Your task to perform on an android device: change your default location settings in chrome Image 0: 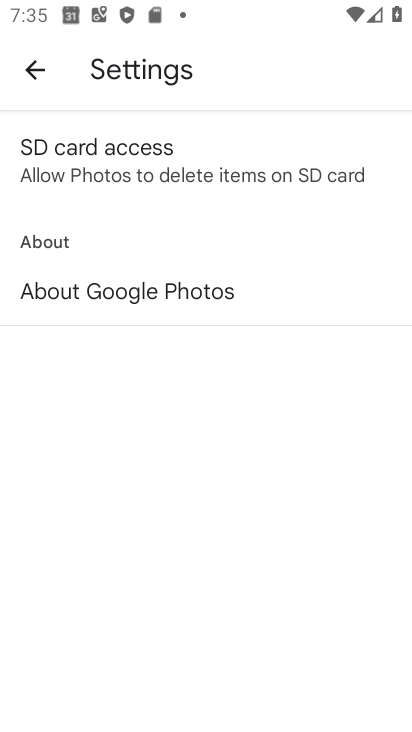
Step 0: press home button
Your task to perform on an android device: change your default location settings in chrome Image 1: 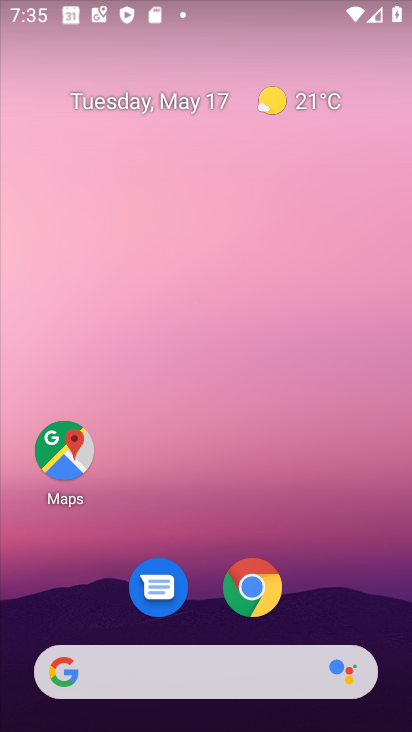
Step 1: drag from (345, 578) to (354, 132)
Your task to perform on an android device: change your default location settings in chrome Image 2: 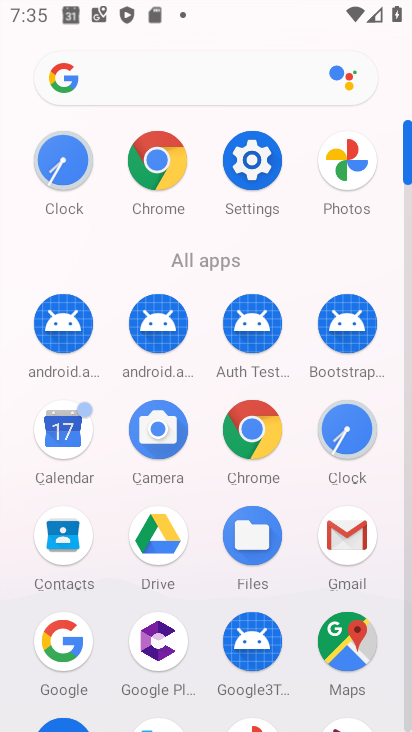
Step 2: click (274, 438)
Your task to perform on an android device: change your default location settings in chrome Image 3: 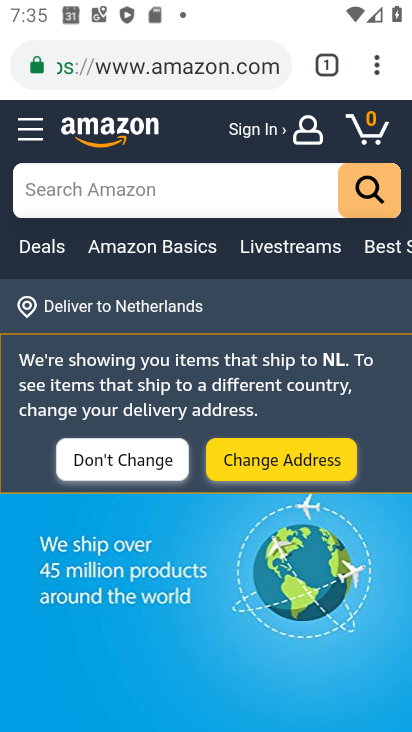
Step 3: click (380, 66)
Your task to perform on an android device: change your default location settings in chrome Image 4: 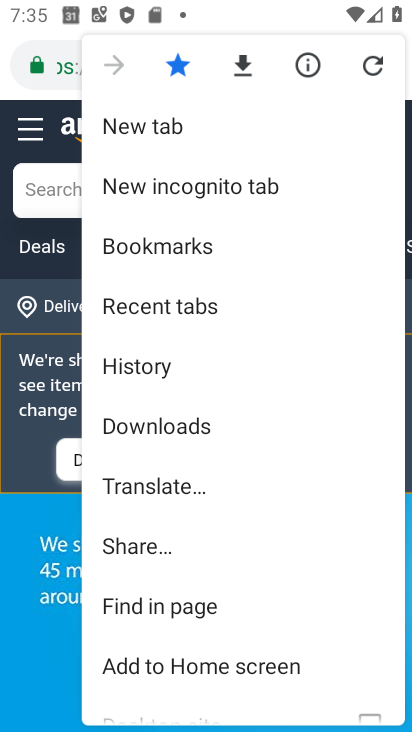
Step 4: drag from (322, 536) to (354, 397)
Your task to perform on an android device: change your default location settings in chrome Image 5: 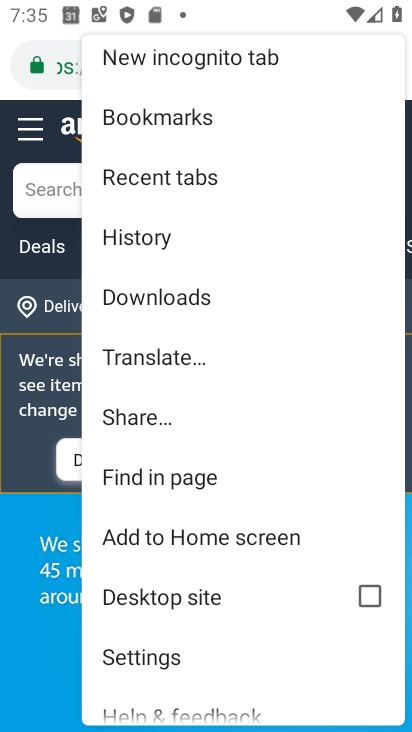
Step 5: drag from (296, 632) to (331, 420)
Your task to perform on an android device: change your default location settings in chrome Image 6: 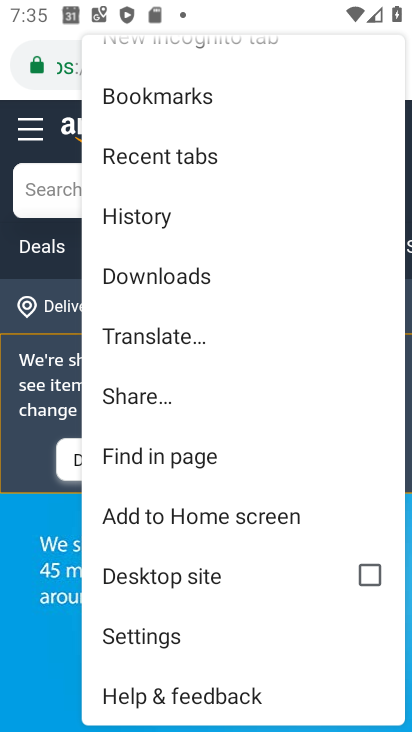
Step 6: click (209, 637)
Your task to perform on an android device: change your default location settings in chrome Image 7: 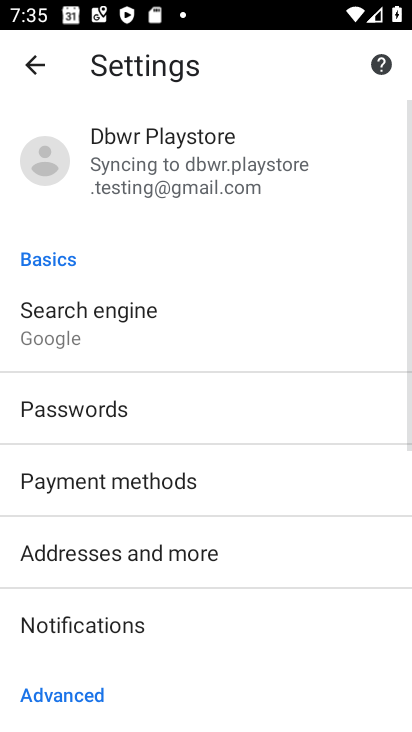
Step 7: drag from (278, 632) to (284, 512)
Your task to perform on an android device: change your default location settings in chrome Image 8: 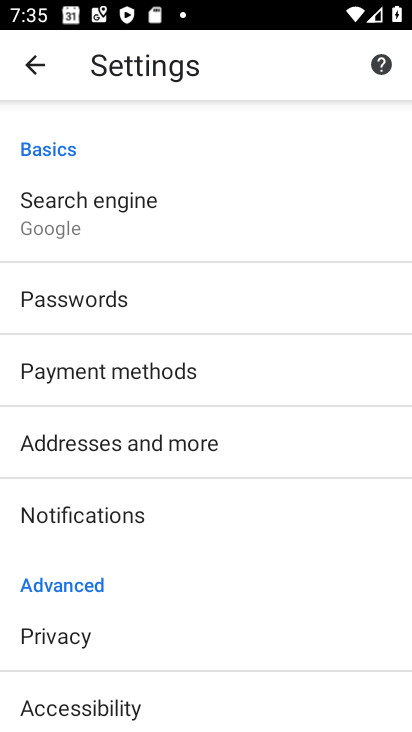
Step 8: drag from (305, 649) to (315, 501)
Your task to perform on an android device: change your default location settings in chrome Image 9: 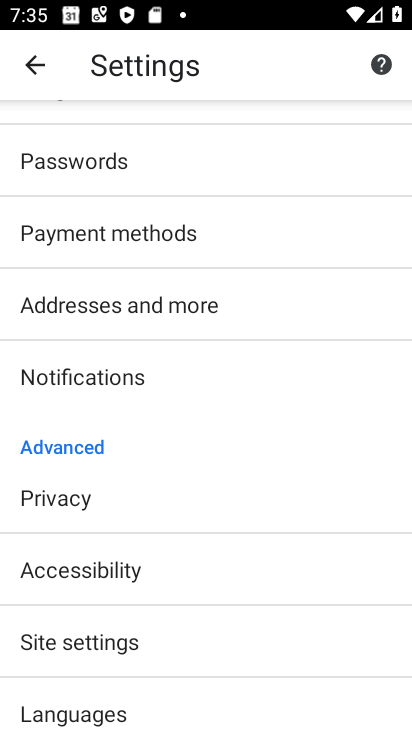
Step 9: drag from (321, 665) to (340, 508)
Your task to perform on an android device: change your default location settings in chrome Image 10: 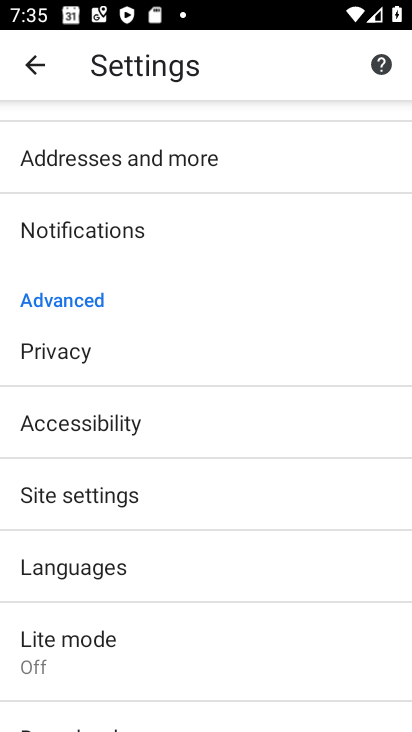
Step 10: drag from (310, 649) to (333, 522)
Your task to perform on an android device: change your default location settings in chrome Image 11: 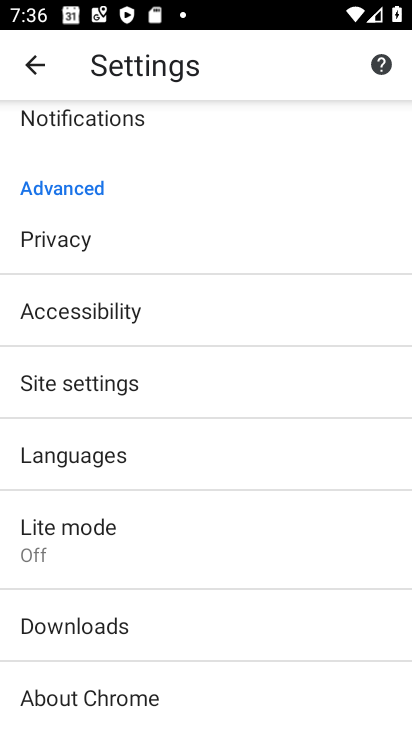
Step 11: drag from (320, 703) to (346, 554)
Your task to perform on an android device: change your default location settings in chrome Image 12: 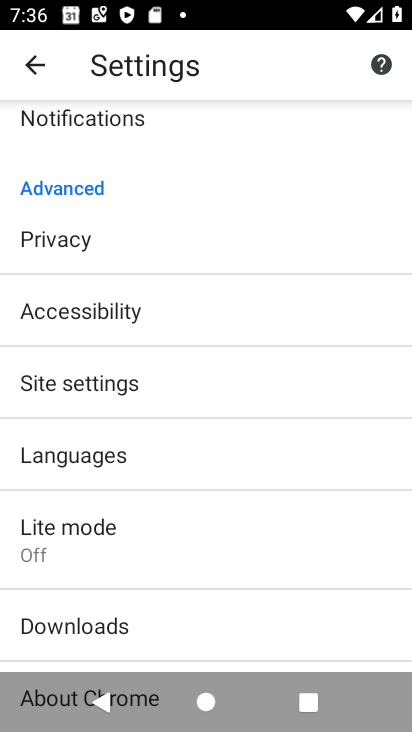
Step 12: drag from (346, 359) to (347, 449)
Your task to perform on an android device: change your default location settings in chrome Image 13: 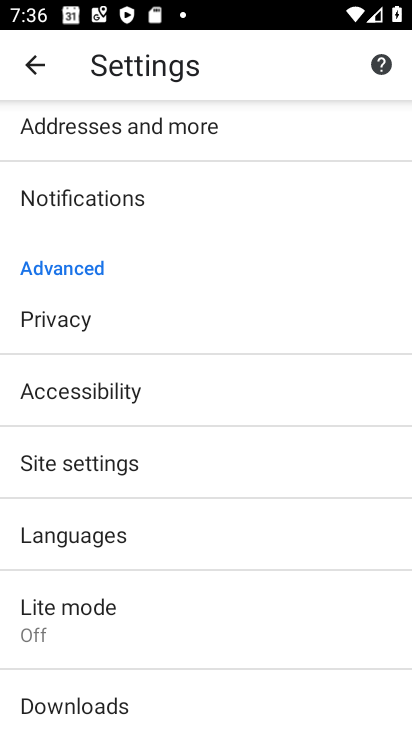
Step 13: drag from (350, 259) to (341, 412)
Your task to perform on an android device: change your default location settings in chrome Image 14: 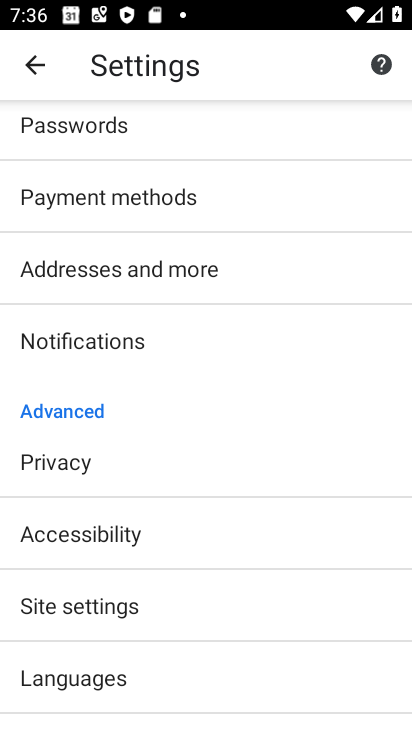
Step 14: click (268, 600)
Your task to perform on an android device: change your default location settings in chrome Image 15: 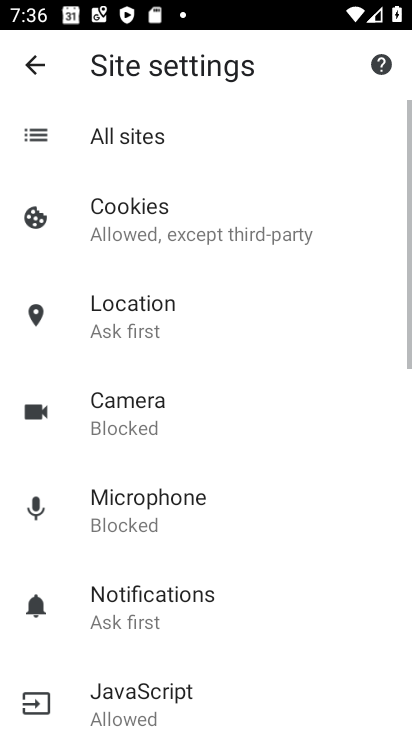
Step 15: drag from (282, 638) to (290, 483)
Your task to perform on an android device: change your default location settings in chrome Image 16: 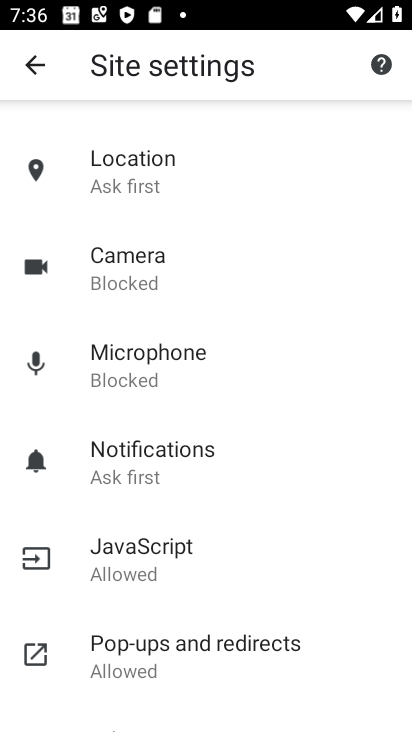
Step 16: drag from (317, 673) to (339, 508)
Your task to perform on an android device: change your default location settings in chrome Image 17: 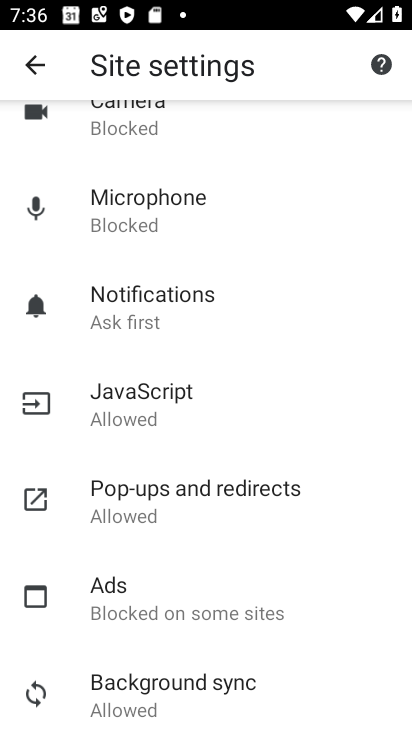
Step 17: drag from (342, 683) to (344, 527)
Your task to perform on an android device: change your default location settings in chrome Image 18: 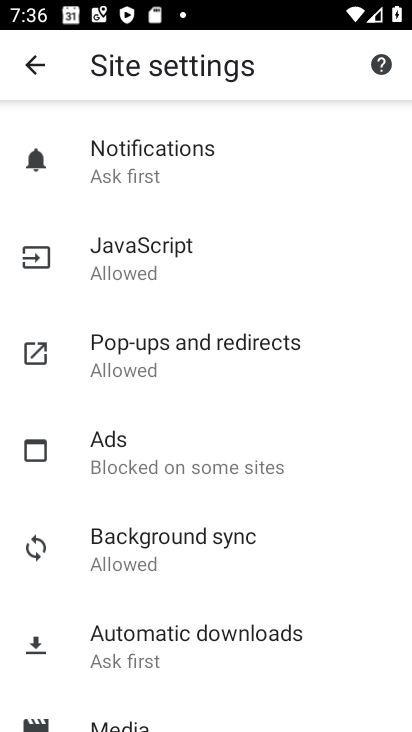
Step 18: drag from (344, 697) to (337, 552)
Your task to perform on an android device: change your default location settings in chrome Image 19: 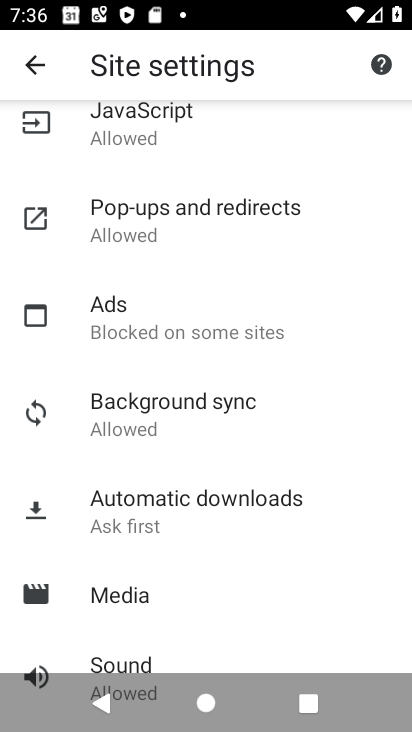
Step 19: drag from (349, 629) to (348, 512)
Your task to perform on an android device: change your default location settings in chrome Image 20: 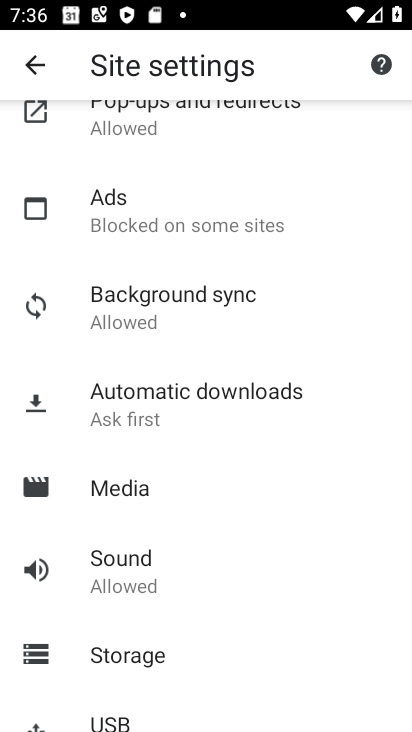
Step 20: drag from (318, 680) to (316, 534)
Your task to perform on an android device: change your default location settings in chrome Image 21: 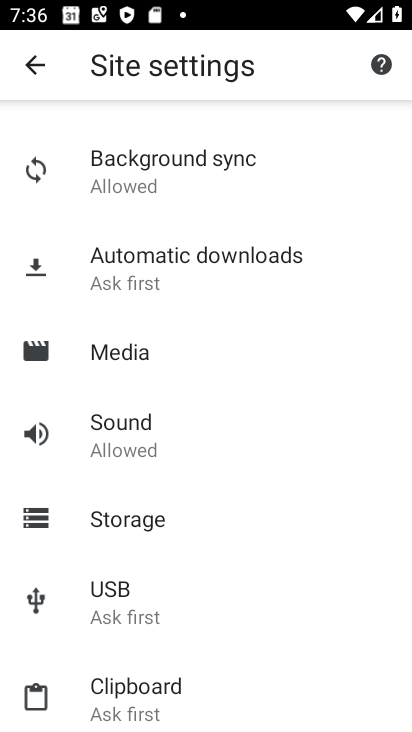
Step 21: drag from (319, 676) to (308, 556)
Your task to perform on an android device: change your default location settings in chrome Image 22: 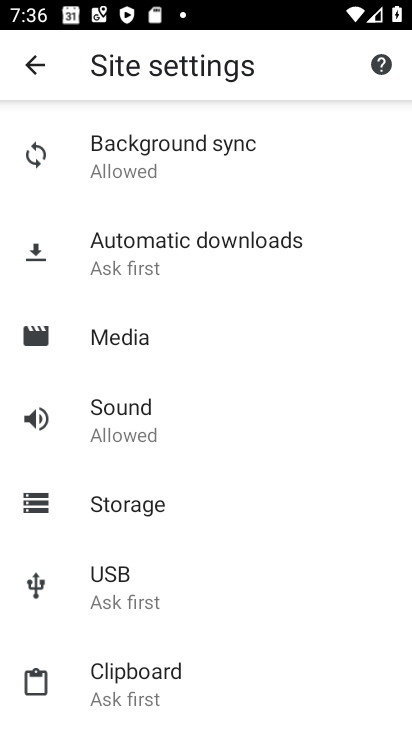
Step 22: drag from (350, 336) to (348, 449)
Your task to perform on an android device: change your default location settings in chrome Image 23: 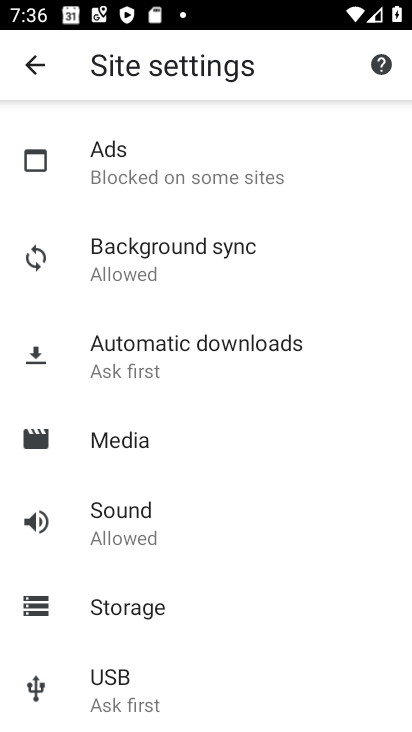
Step 23: drag from (363, 282) to (360, 381)
Your task to perform on an android device: change your default location settings in chrome Image 24: 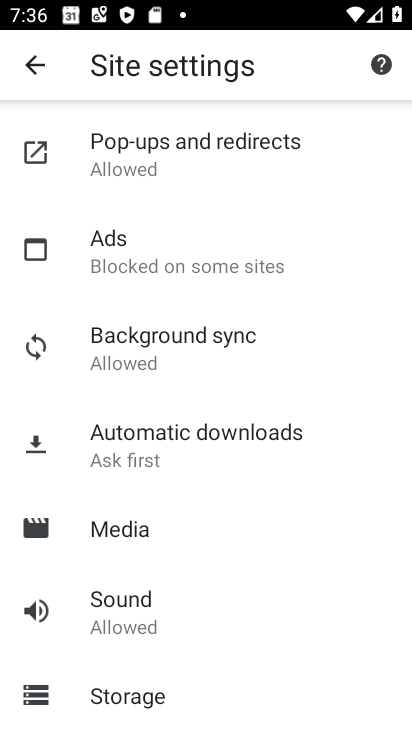
Step 24: drag from (361, 259) to (362, 373)
Your task to perform on an android device: change your default location settings in chrome Image 25: 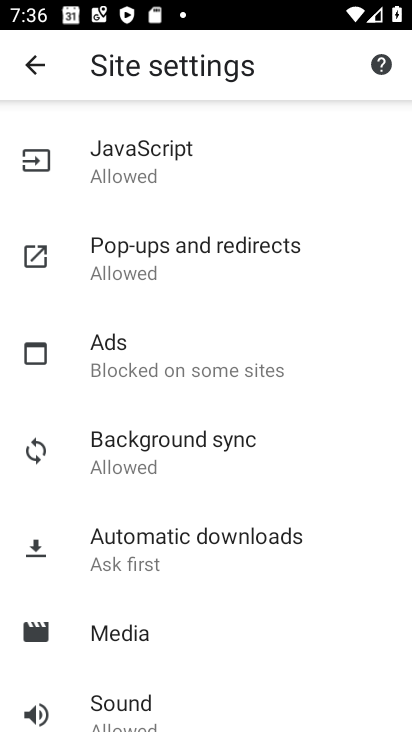
Step 25: drag from (345, 243) to (343, 363)
Your task to perform on an android device: change your default location settings in chrome Image 26: 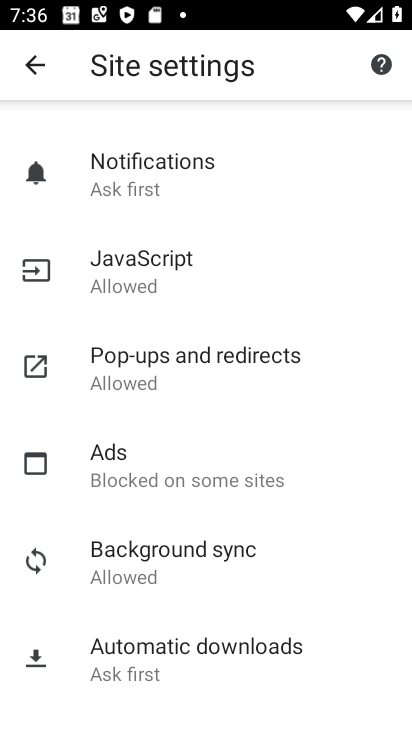
Step 26: drag from (340, 247) to (336, 352)
Your task to perform on an android device: change your default location settings in chrome Image 27: 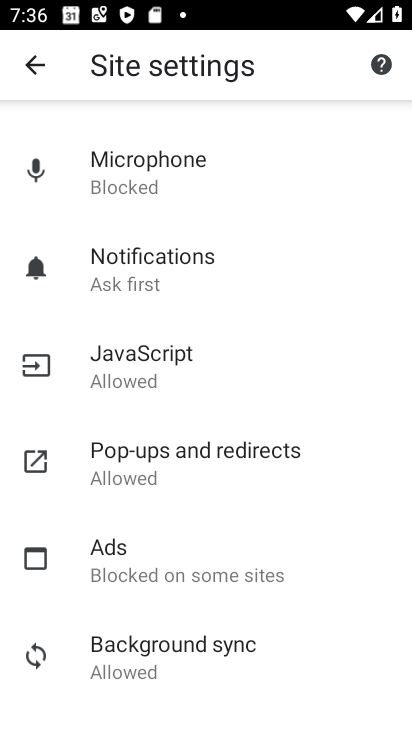
Step 27: drag from (321, 236) to (319, 355)
Your task to perform on an android device: change your default location settings in chrome Image 28: 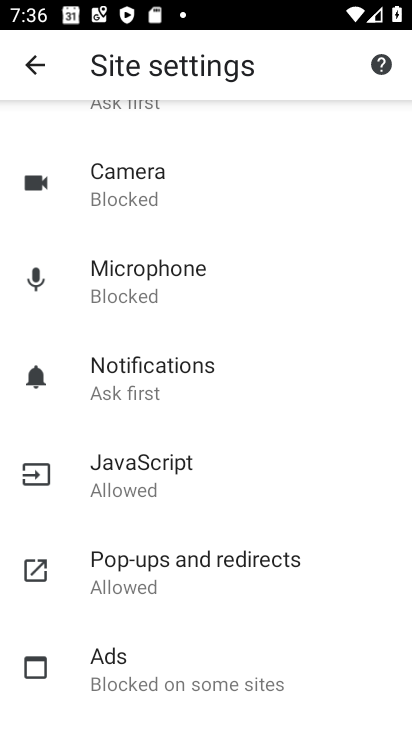
Step 28: drag from (332, 213) to (331, 355)
Your task to perform on an android device: change your default location settings in chrome Image 29: 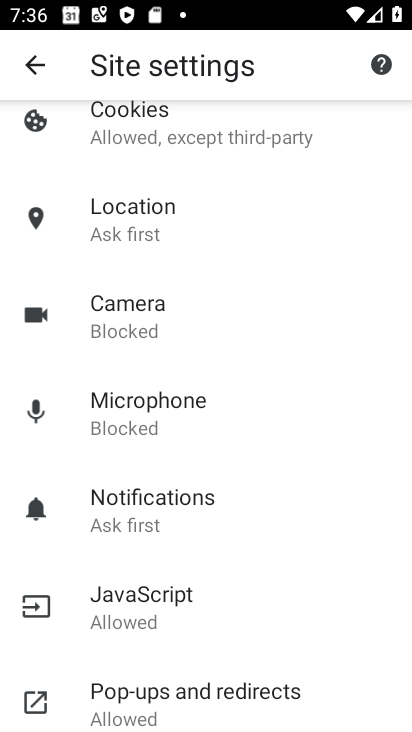
Step 29: click (120, 213)
Your task to perform on an android device: change your default location settings in chrome Image 30: 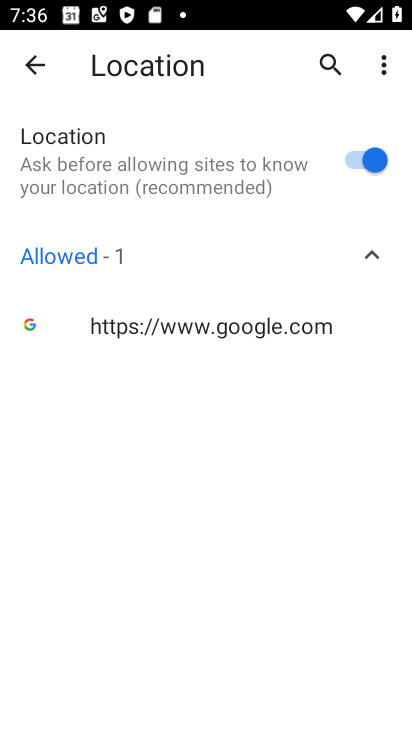
Step 30: click (379, 162)
Your task to perform on an android device: change your default location settings in chrome Image 31: 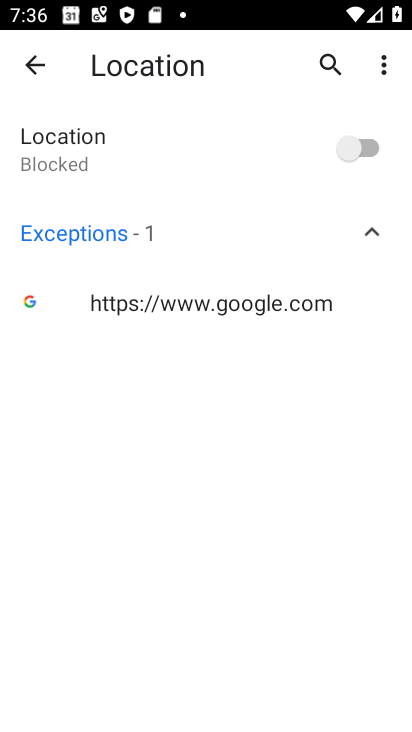
Step 31: task complete